Your task to perform on an android device: Open location settings Image 0: 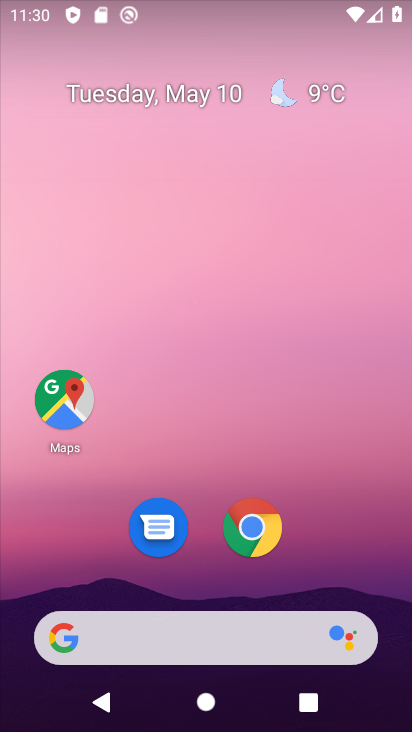
Step 0: drag from (214, 721) to (193, 137)
Your task to perform on an android device: Open location settings Image 1: 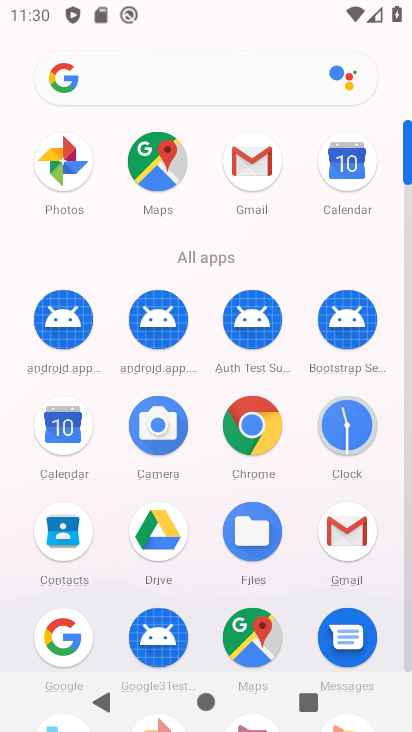
Step 1: drag from (111, 613) to (110, 311)
Your task to perform on an android device: Open location settings Image 2: 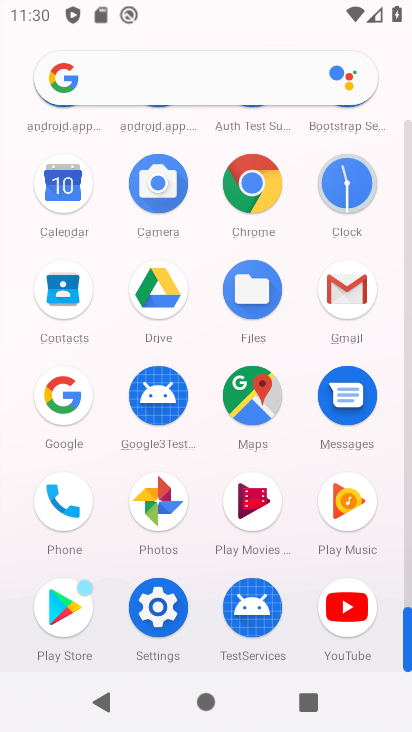
Step 2: click (147, 613)
Your task to perform on an android device: Open location settings Image 3: 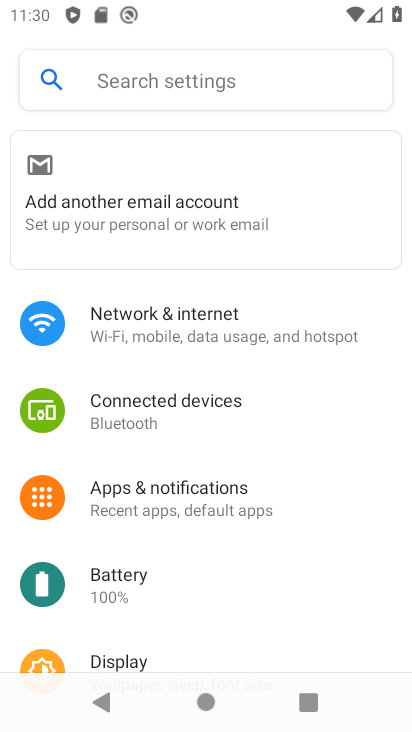
Step 3: drag from (180, 635) to (178, 252)
Your task to perform on an android device: Open location settings Image 4: 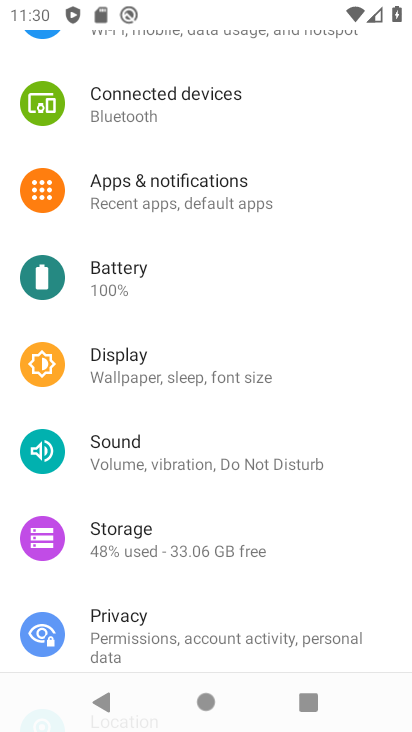
Step 4: drag from (157, 627) to (159, 305)
Your task to perform on an android device: Open location settings Image 5: 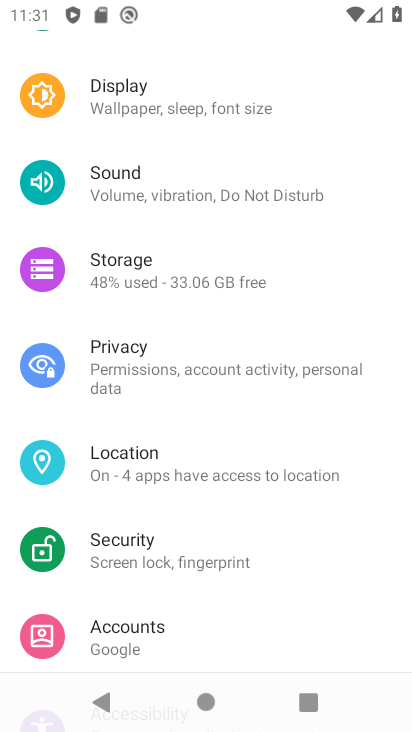
Step 5: click (132, 459)
Your task to perform on an android device: Open location settings Image 6: 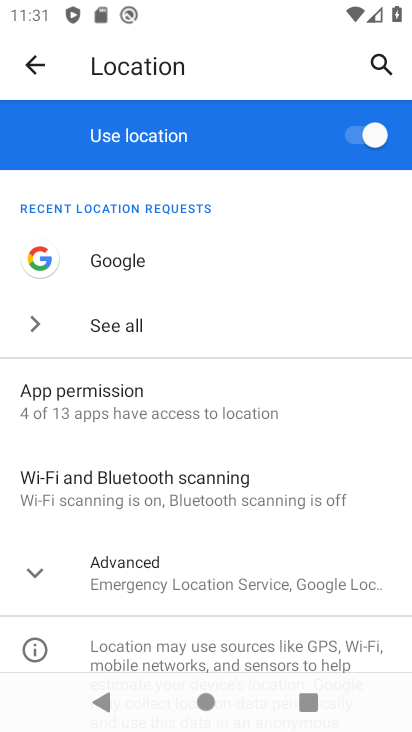
Step 6: task complete